Your task to perform on an android device: Open privacy settings Image 0: 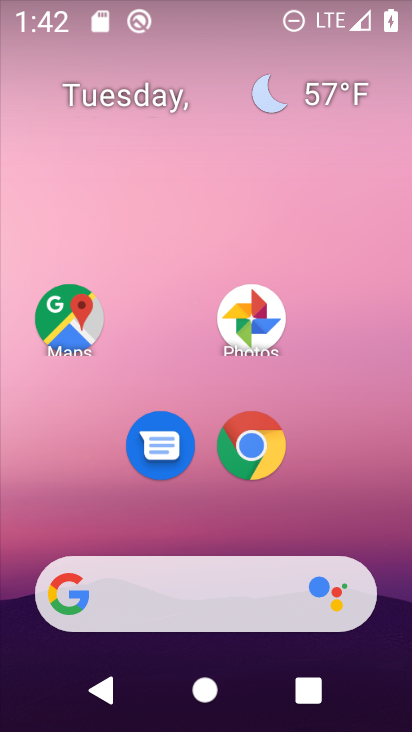
Step 0: drag from (396, 342) to (398, 155)
Your task to perform on an android device: Open privacy settings Image 1: 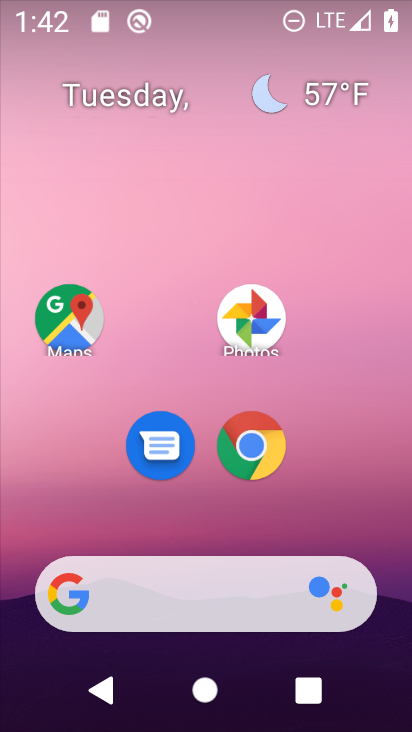
Step 1: drag from (393, 546) to (385, 207)
Your task to perform on an android device: Open privacy settings Image 2: 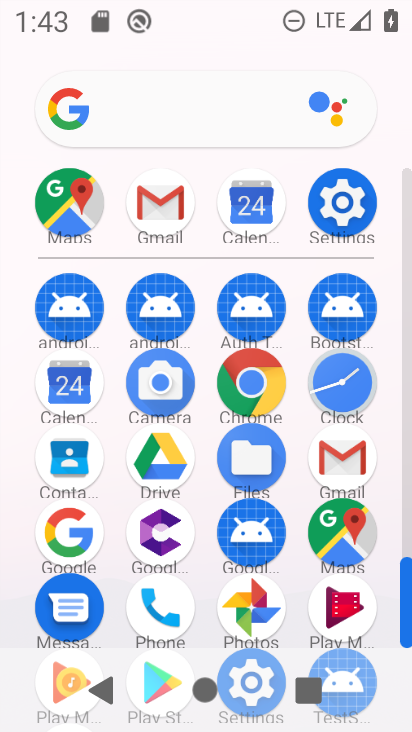
Step 2: click (354, 212)
Your task to perform on an android device: Open privacy settings Image 3: 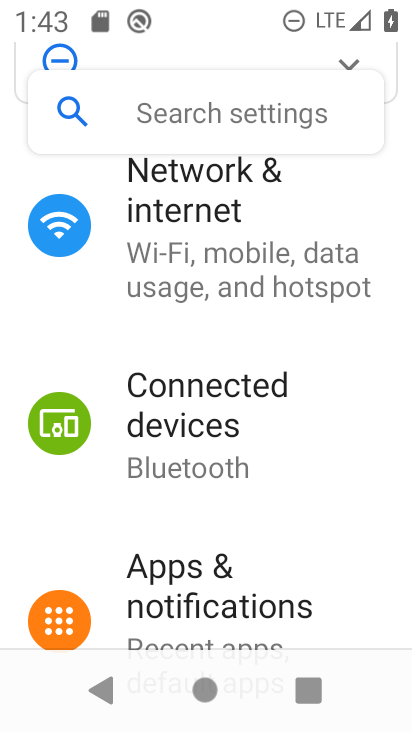
Step 3: drag from (371, 583) to (376, 490)
Your task to perform on an android device: Open privacy settings Image 4: 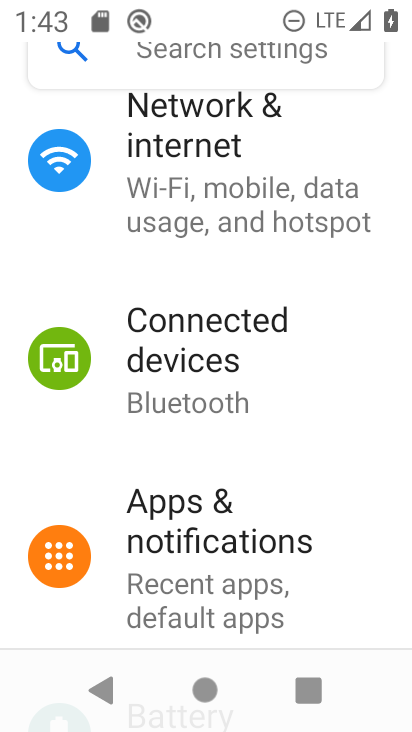
Step 4: drag from (376, 609) to (369, 483)
Your task to perform on an android device: Open privacy settings Image 5: 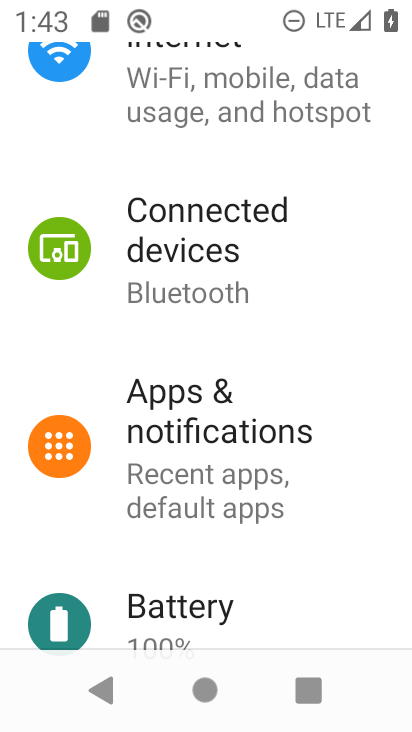
Step 5: drag from (360, 594) to (358, 474)
Your task to perform on an android device: Open privacy settings Image 6: 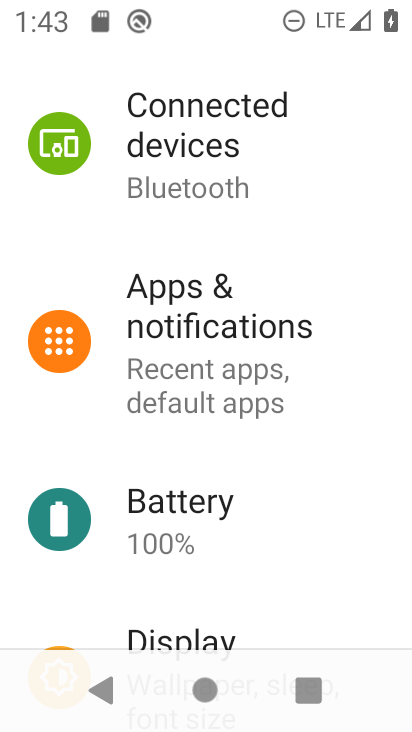
Step 6: drag from (353, 607) to (364, 472)
Your task to perform on an android device: Open privacy settings Image 7: 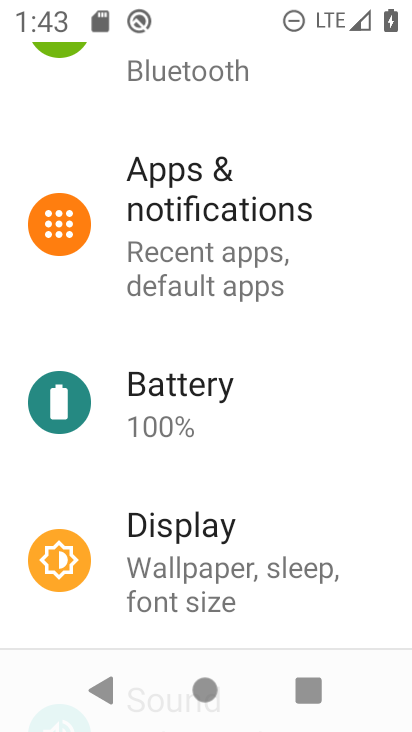
Step 7: drag from (341, 594) to (337, 491)
Your task to perform on an android device: Open privacy settings Image 8: 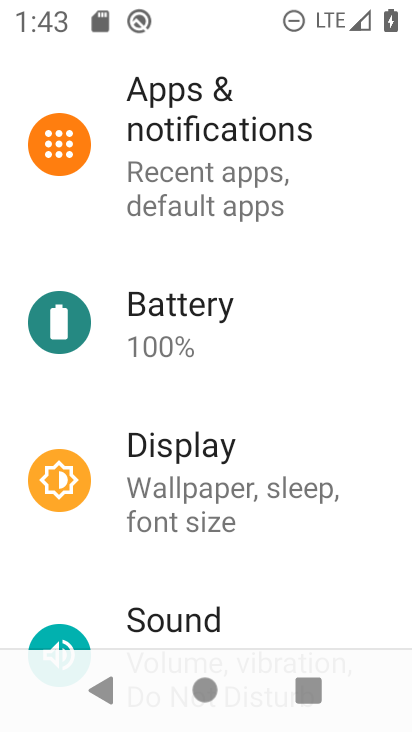
Step 8: drag from (347, 597) to (352, 500)
Your task to perform on an android device: Open privacy settings Image 9: 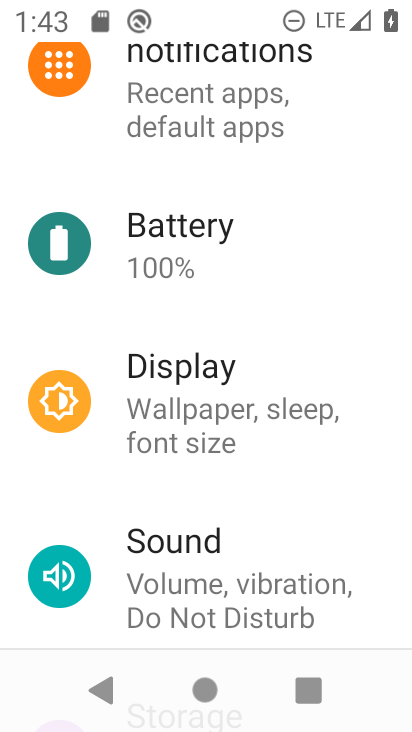
Step 9: drag from (368, 624) to (374, 496)
Your task to perform on an android device: Open privacy settings Image 10: 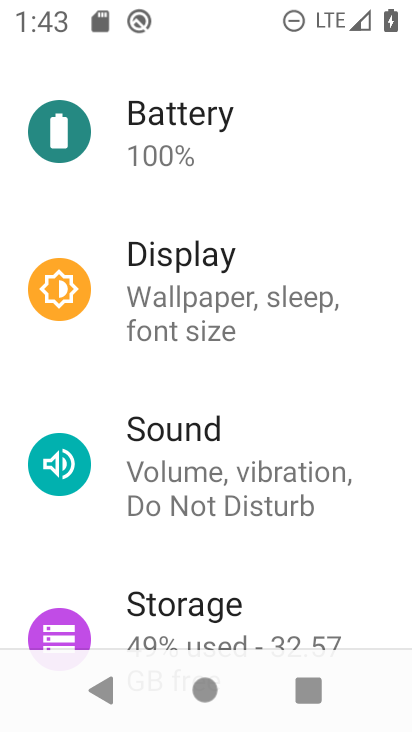
Step 10: drag from (363, 602) to (366, 495)
Your task to perform on an android device: Open privacy settings Image 11: 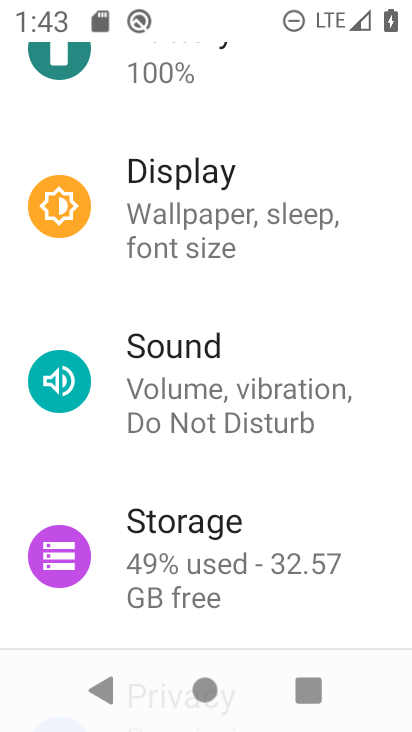
Step 11: drag from (365, 628) to (364, 486)
Your task to perform on an android device: Open privacy settings Image 12: 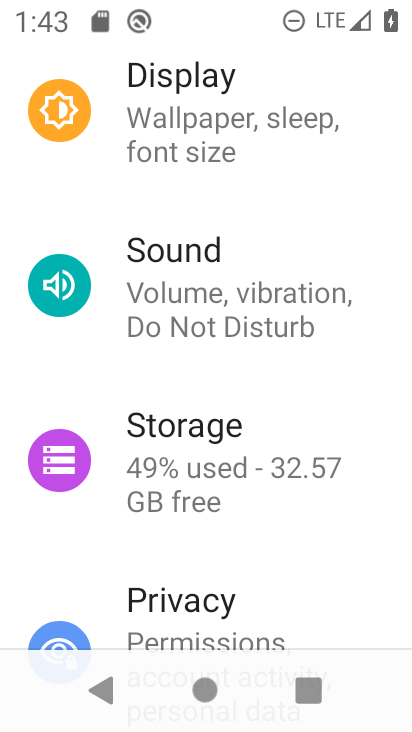
Step 12: drag from (349, 623) to (340, 490)
Your task to perform on an android device: Open privacy settings Image 13: 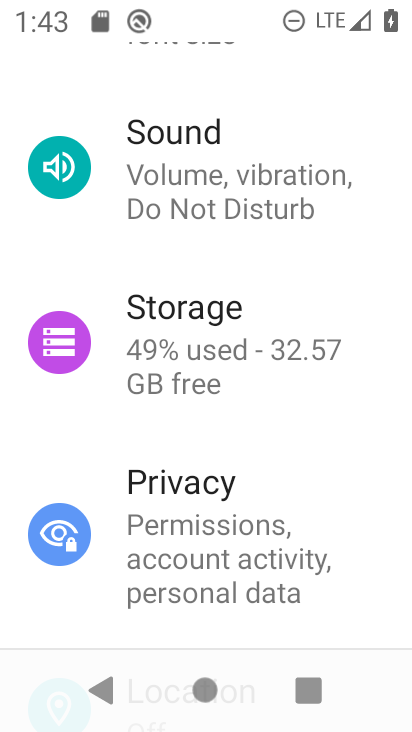
Step 13: click (288, 558)
Your task to perform on an android device: Open privacy settings Image 14: 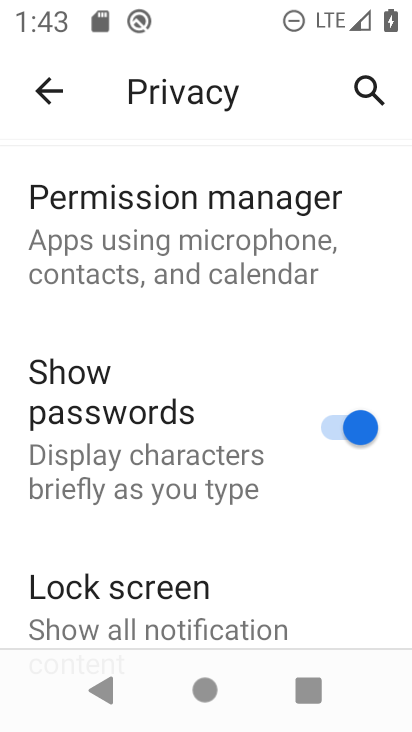
Step 14: task complete